Your task to perform on an android device: Go to CNN.com Image 0: 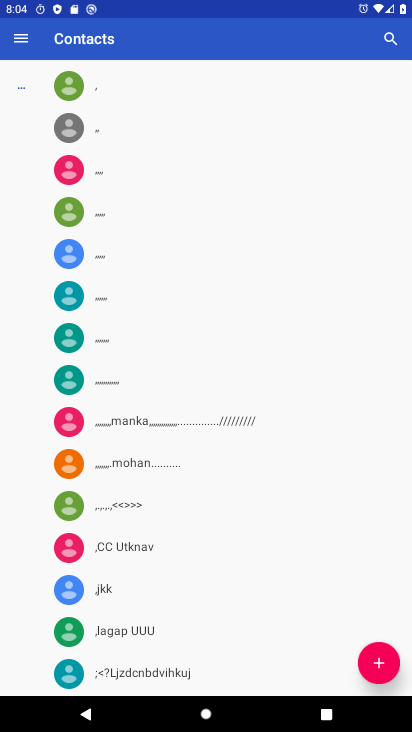
Step 0: press back button
Your task to perform on an android device: Go to CNN.com Image 1: 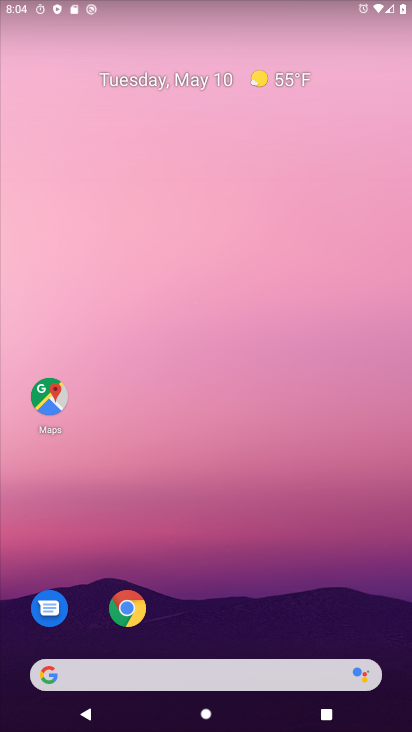
Step 1: click (127, 606)
Your task to perform on an android device: Go to CNN.com Image 2: 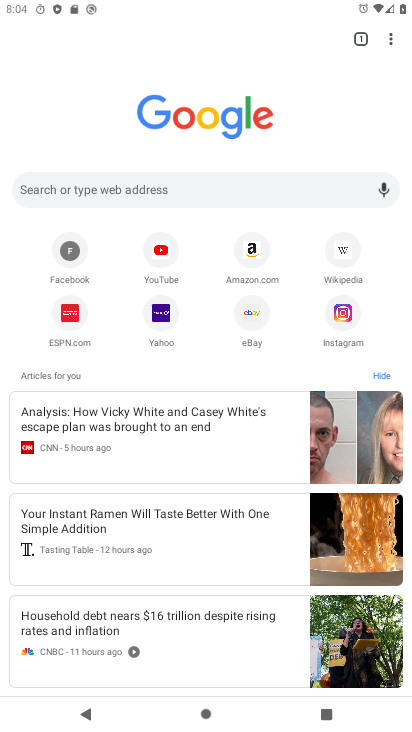
Step 2: click (203, 186)
Your task to perform on an android device: Go to CNN.com Image 3: 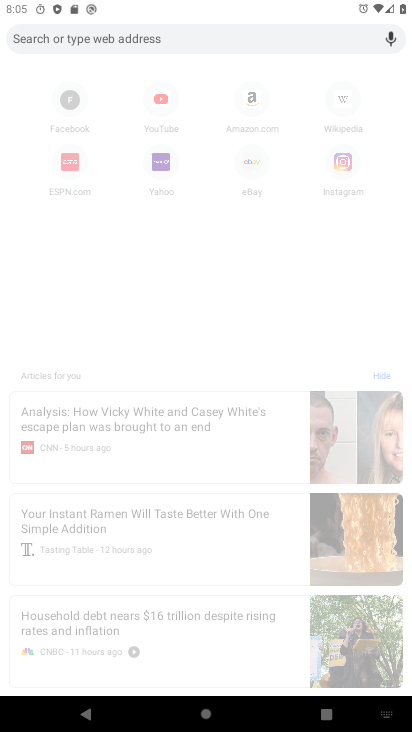
Step 3: type "CNN.com"
Your task to perform on an android device: Go to CNN.com Image 4: 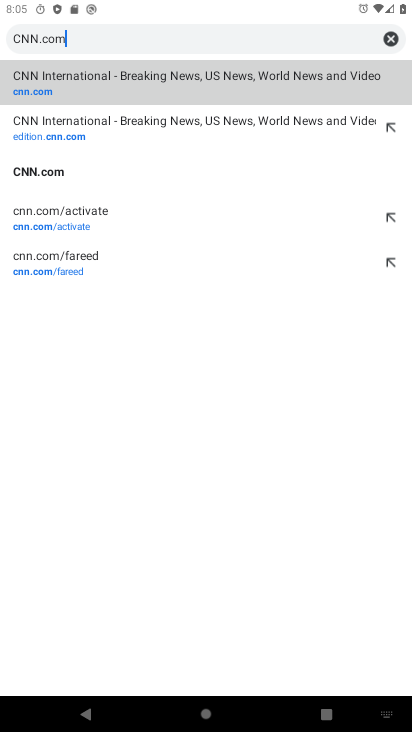
Step 4: type ""
Your task to perform on an android device: Go to CNN.com Image 5: 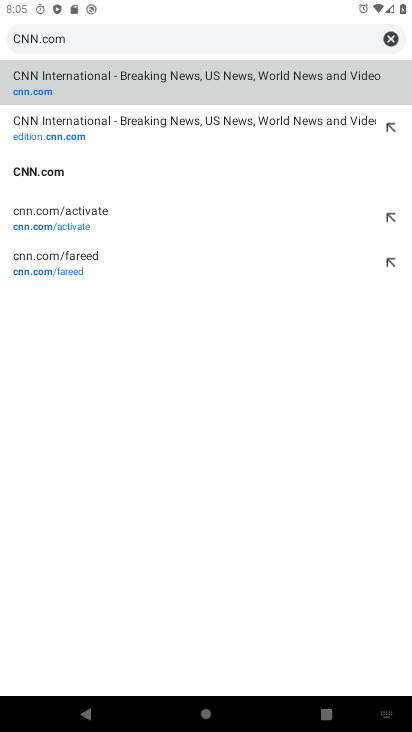
Step 5: click (53, 176)
Your task to perform on an android device: Go to CNN.com Image 6: 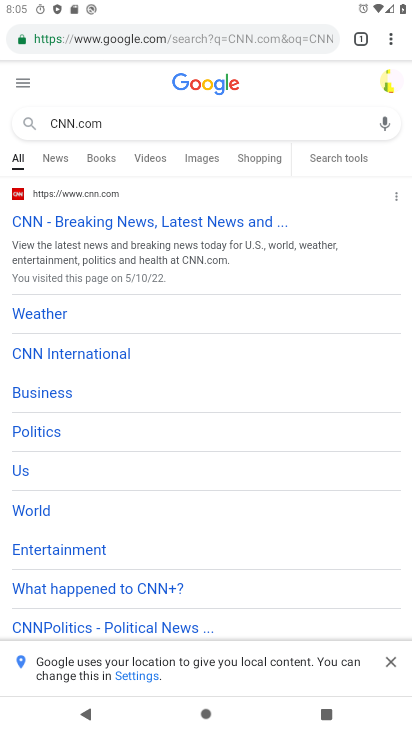
Step 6: click (55, 218)
Your task to perform on an android device: Go to CNN.com Image 7: 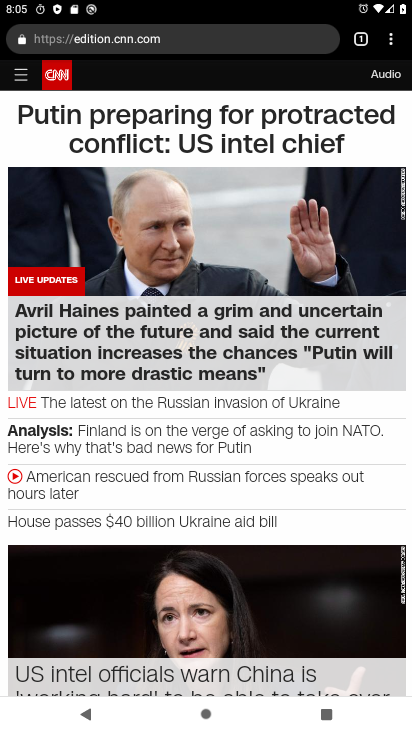
Step 7: task complete